Your task to perform on an android device: Add bose soundlink mini to the cart on target.com Image 0: 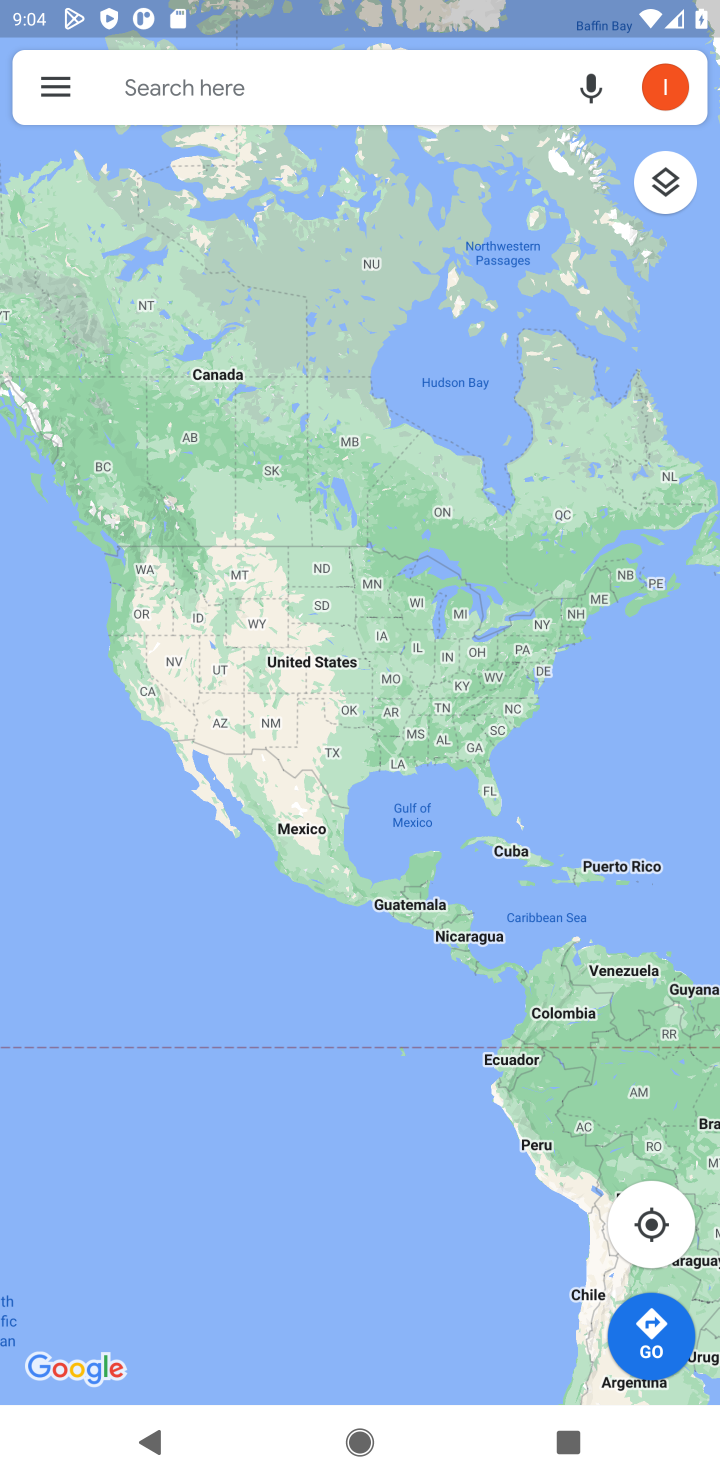
Step 0: press home button
Your task to perform on an android device: Add bose soundlink mini to the cart on target.com Image 1: 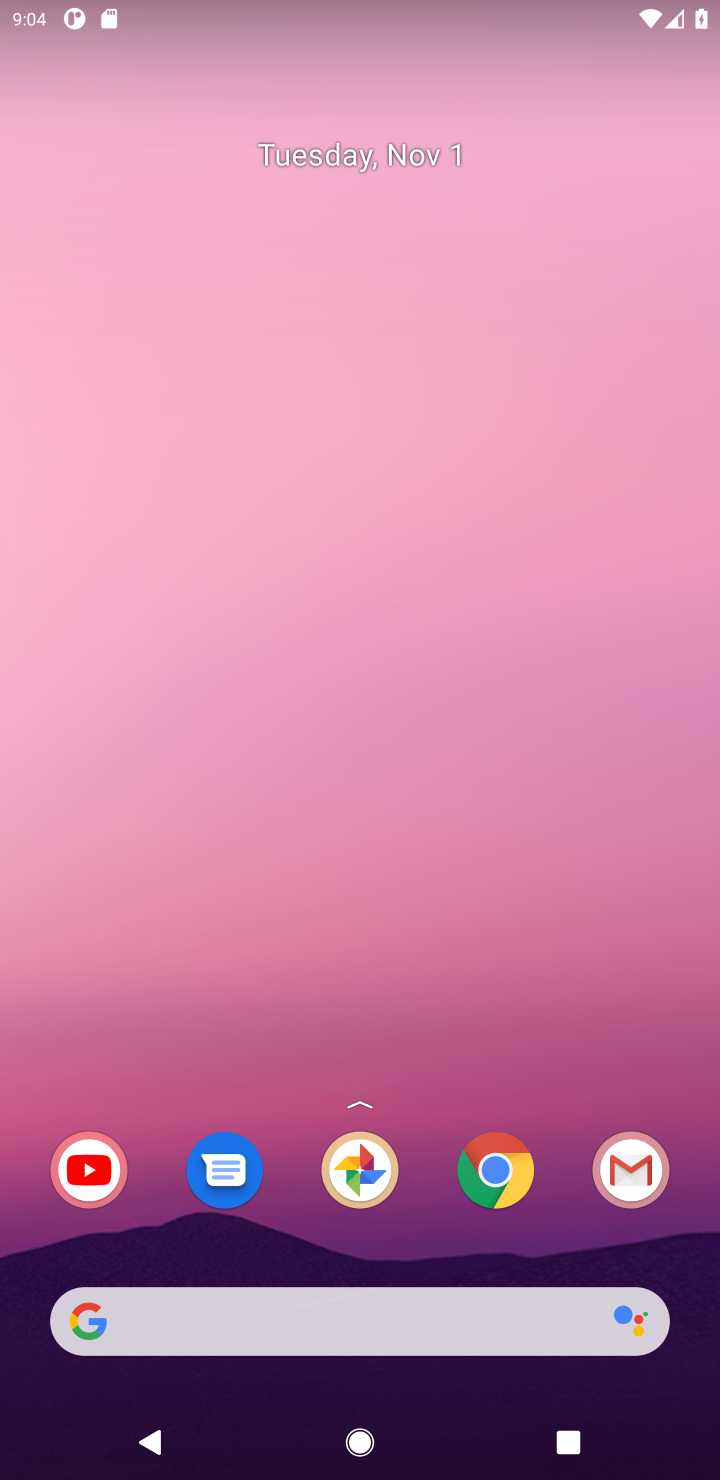
Step 1: click (512, 1189)
Your task to perform on an android device: Add bose soundlink mini to the cart on target.com Image 2: 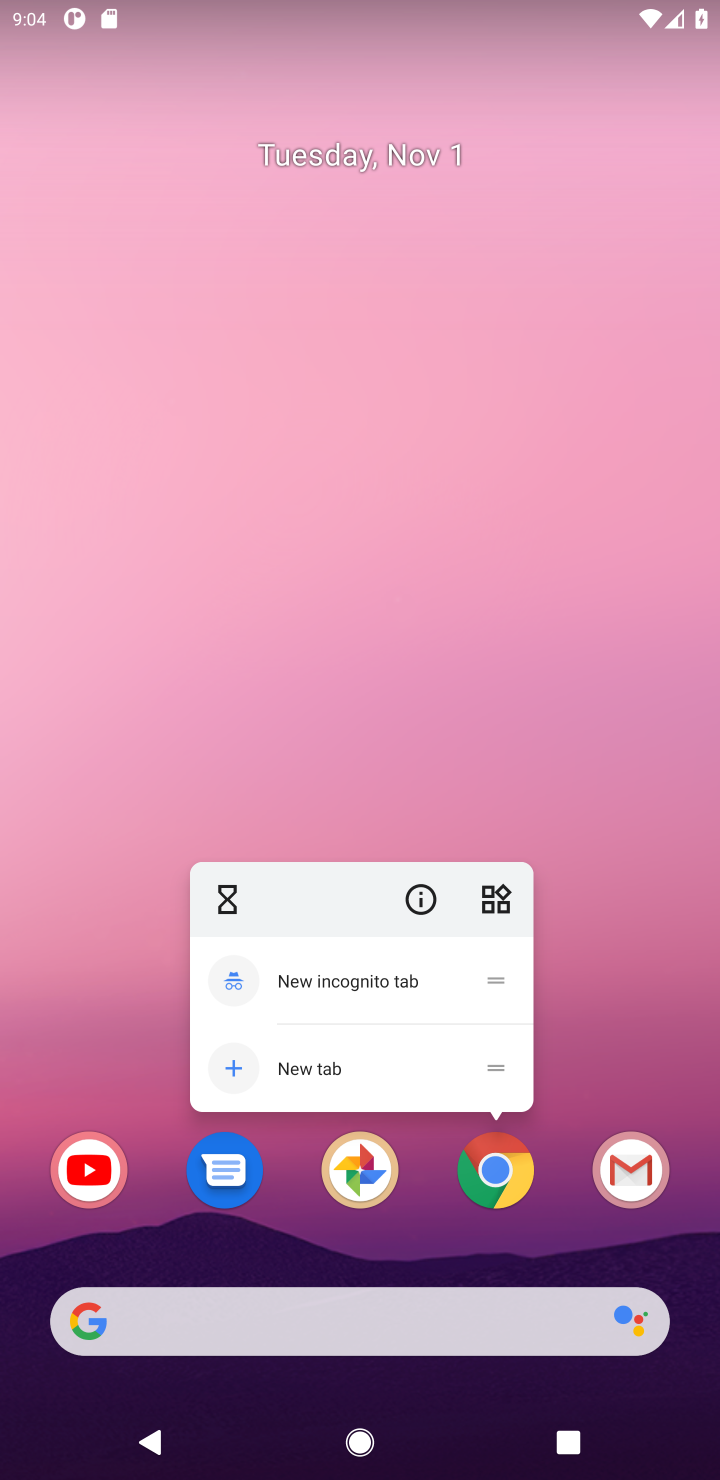
Step 2: click (495, 1201)
Your task to perform on an android device: Add bose soundlink mini to the cart on target.com Image 3: 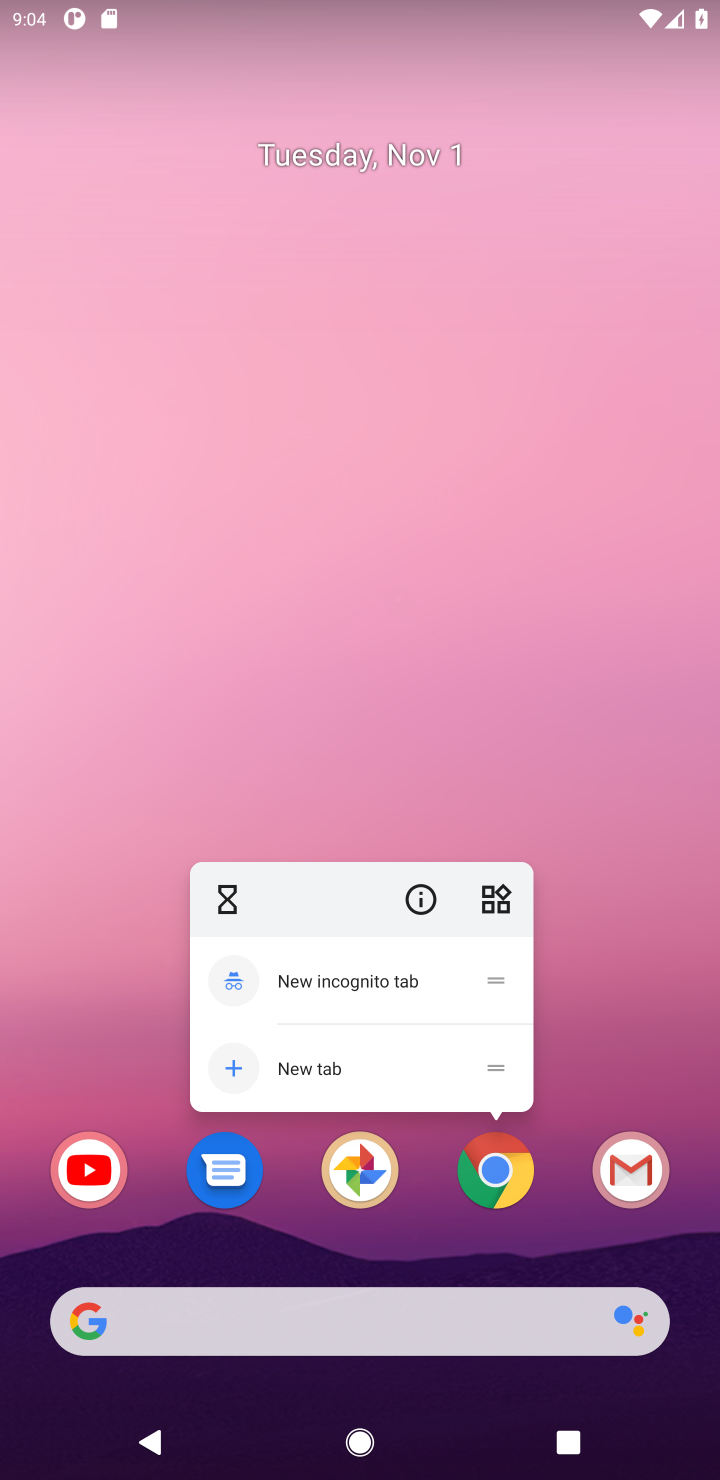
Step 3: click (517, 1180)
Your task to perform on an android device: Add bose soundlink mini to the cart on target.com Image 4: 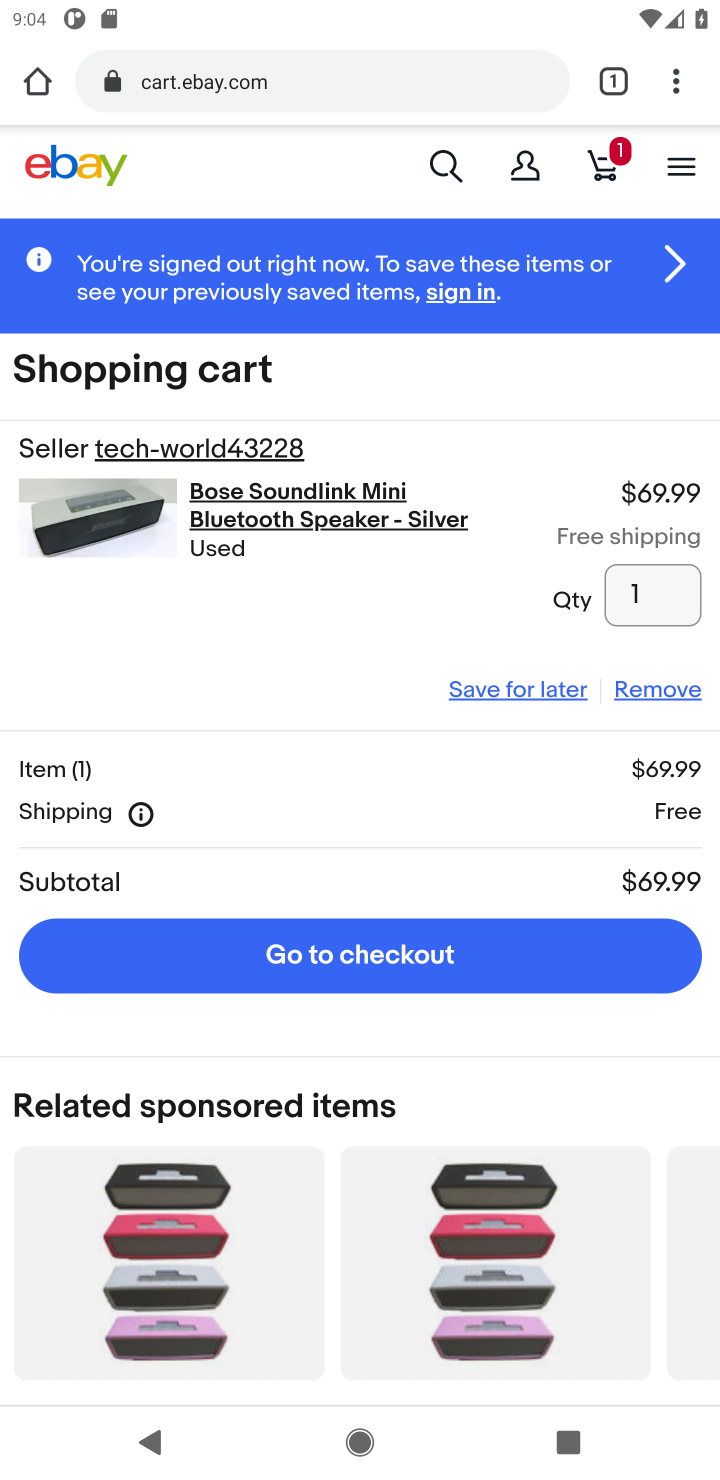
Step 4: click (343, 76)
Your task to perform on an android device: Add bose soundlink mini to the cart on target.com Image 5: 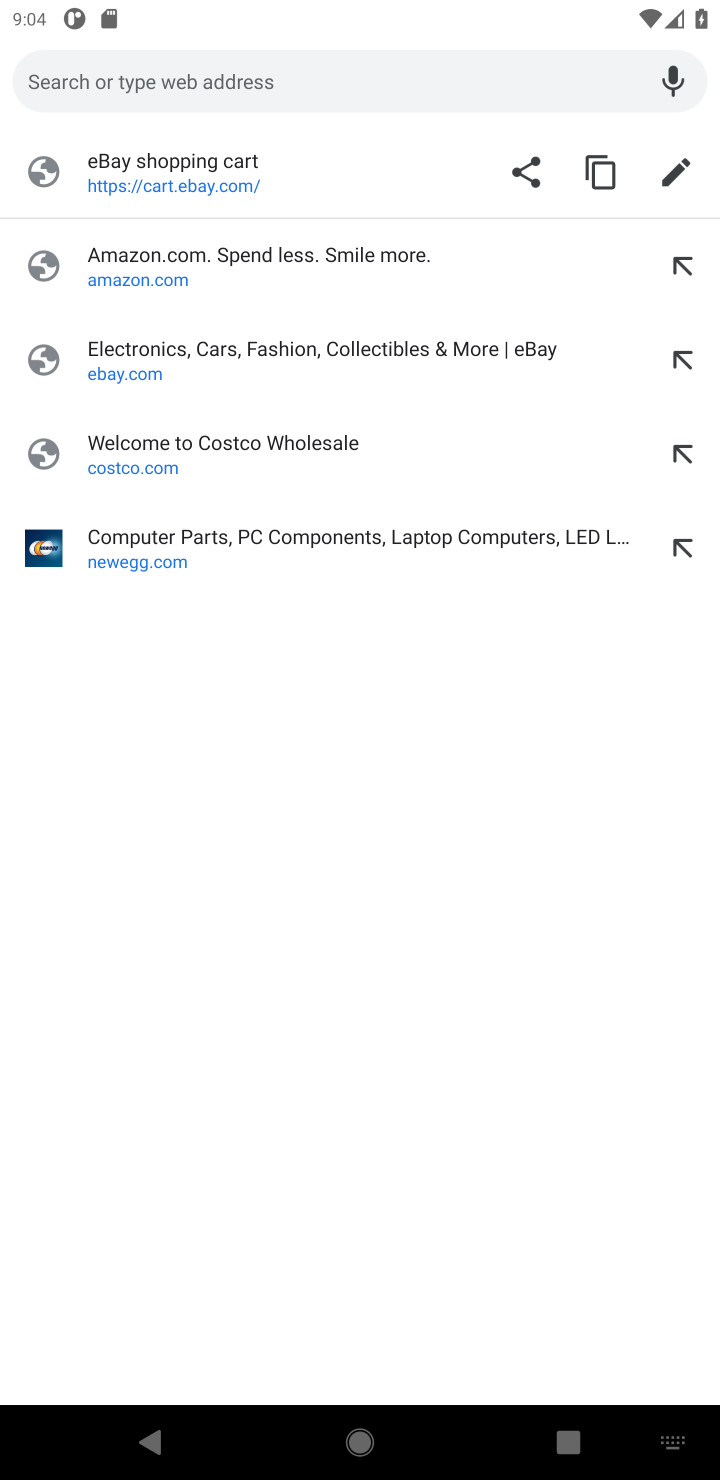
Step 5: type "target.com"
Your task to perform on an android device: Add bose soundlink mini to the cart on target.com Image 6: 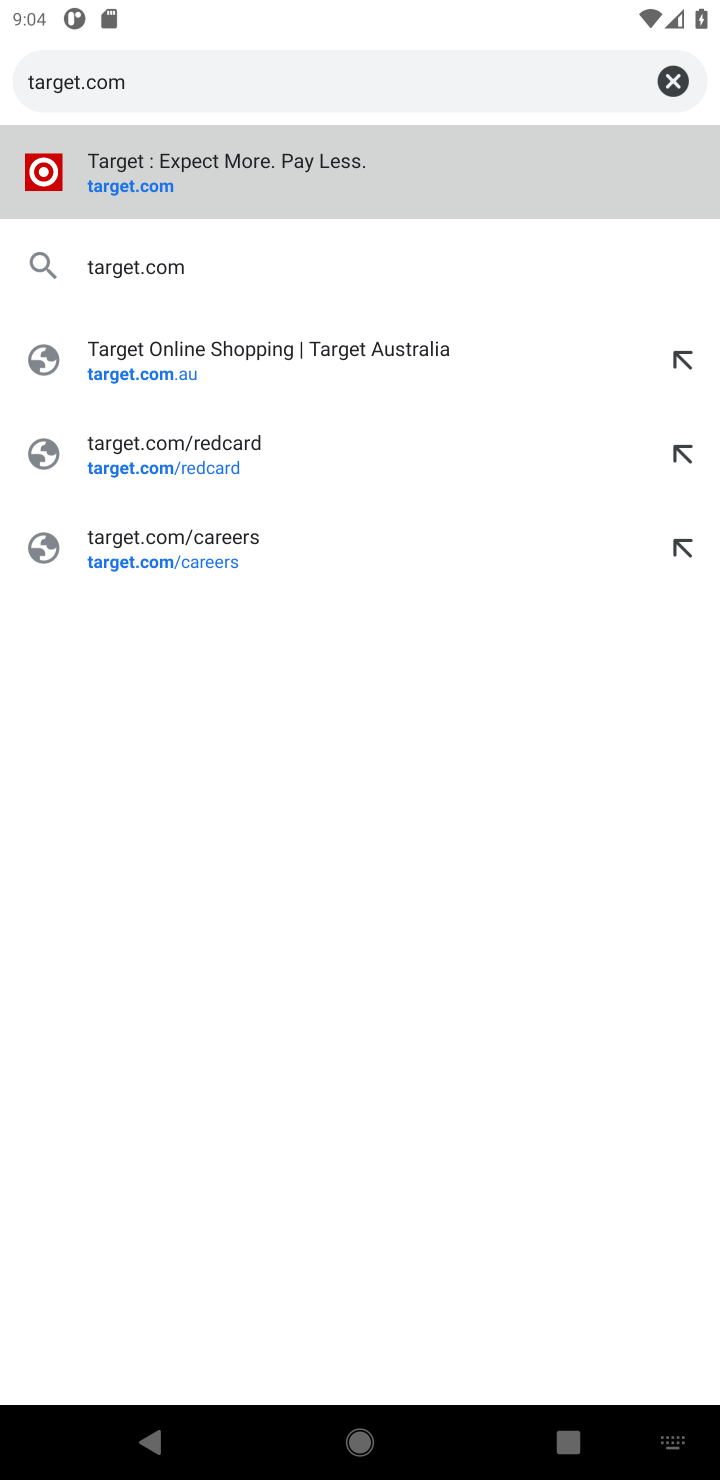
Step 6: press enter
Your task to perform on an android device: Add bose soundlink mini to the cart on target.com Image 7: 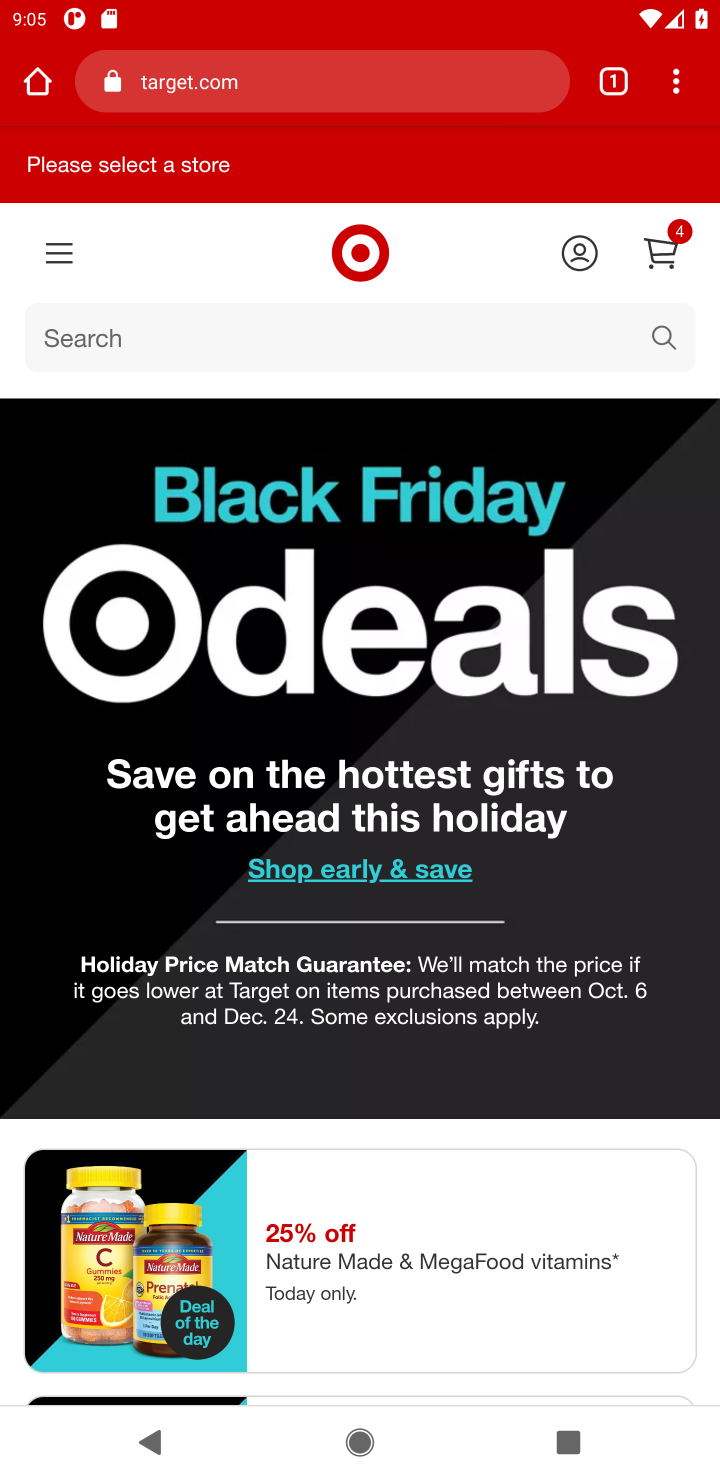
Step 7: click (225, 335)
Your task to perform on an android device: Add bose soundlink mini to the cart on target.com Image 8: 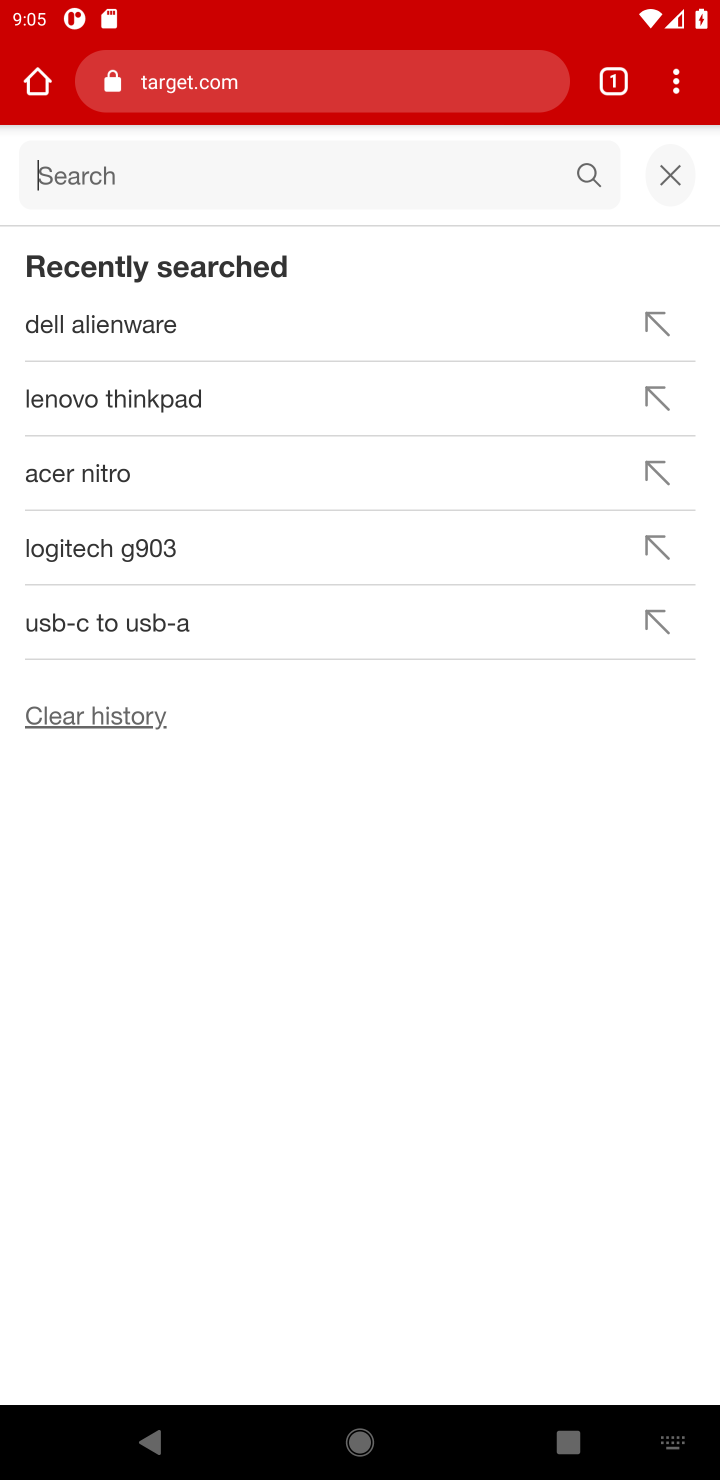
Step 8: type "bose soundlink mini"
Your task to perform on an android device: Add bose soundlink mini to the cart on target.com Image 9: 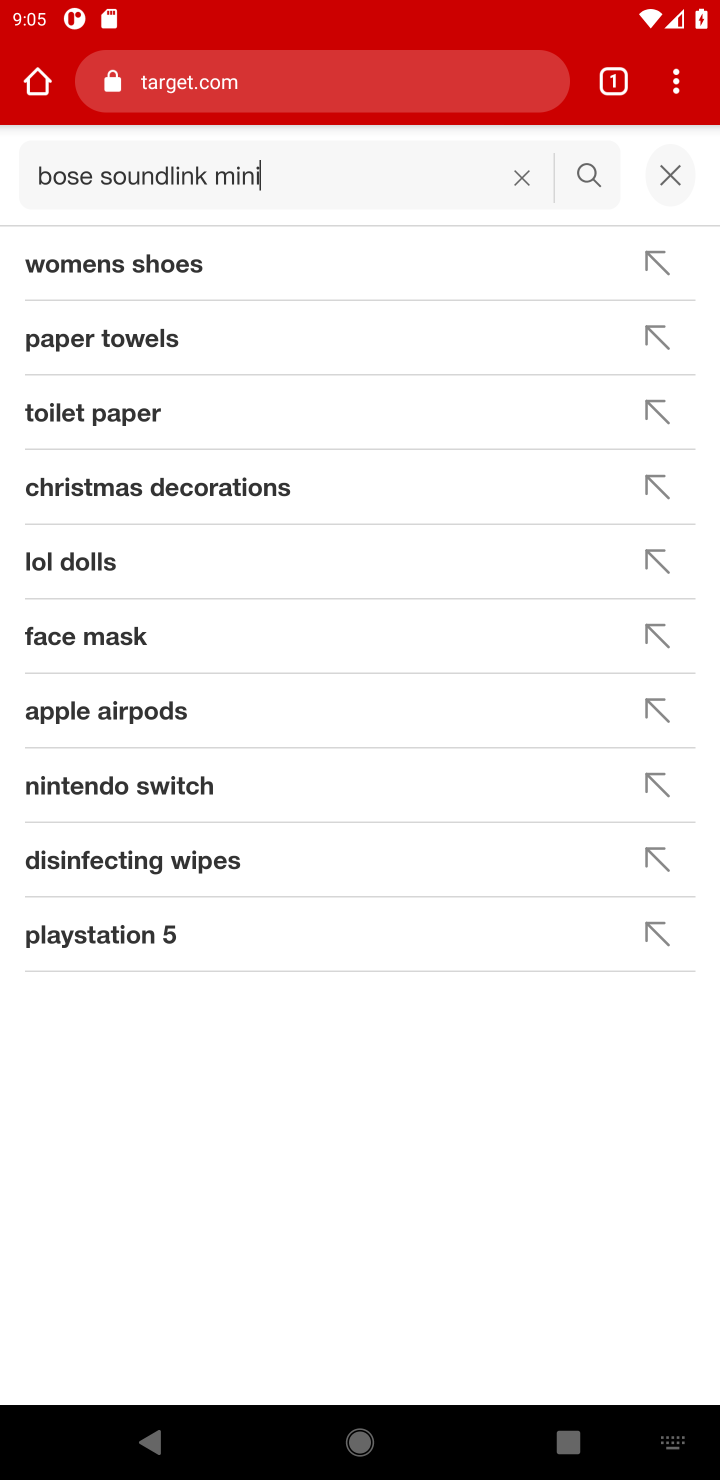
Step 9: type ""
Your task to perform on an android device: Add bose soundlink mini to the cart on target.com Image 10: 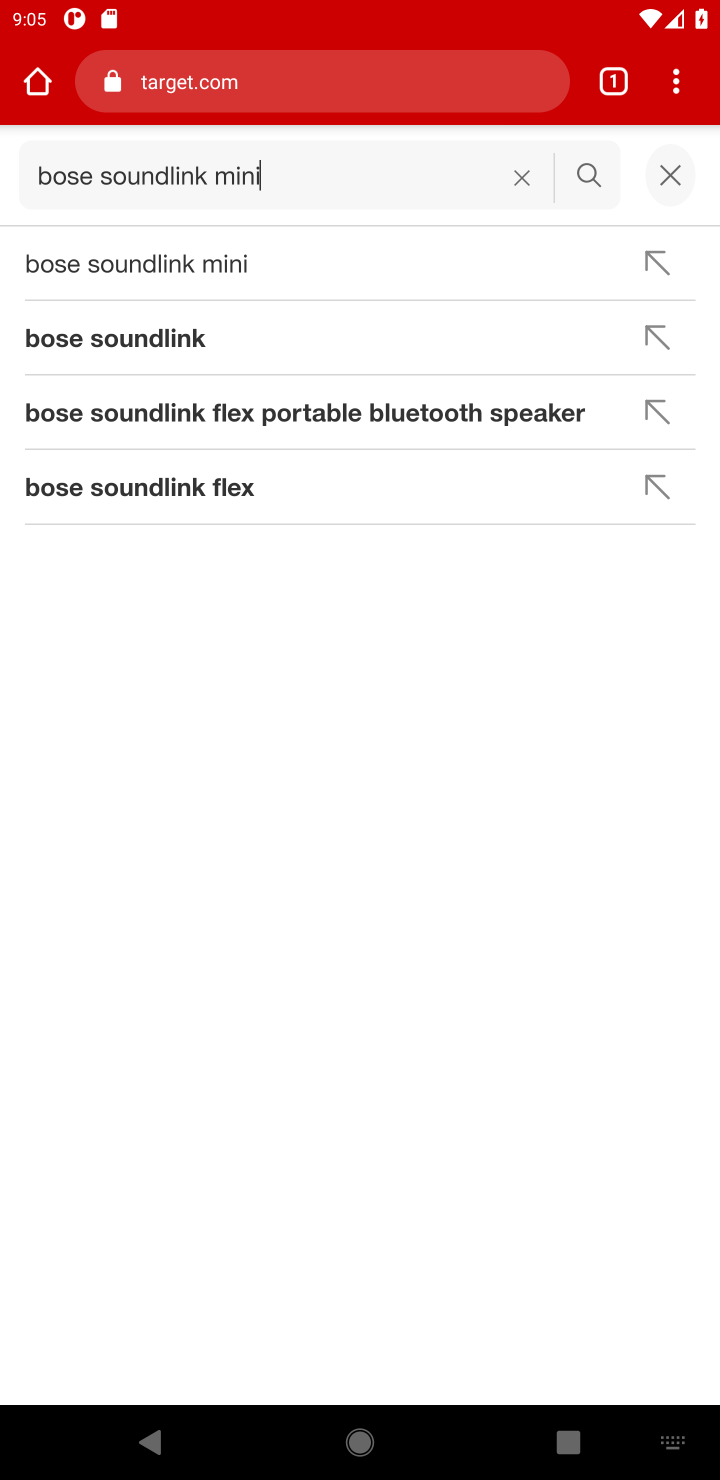
Step 10: press enter
Your task to perform on an android device: Add bose soundlink mini to the cart on target.com Image 11: 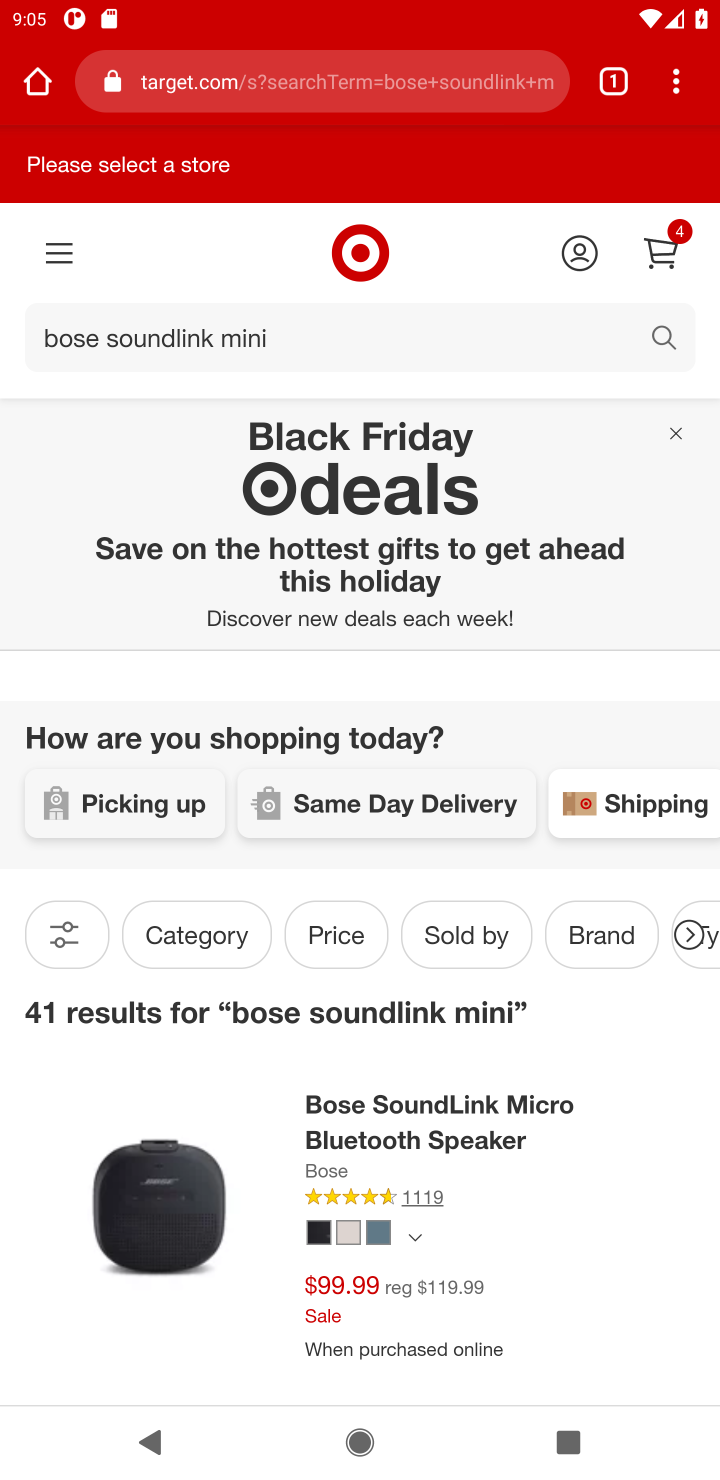
Step 11: task complete